Your task to perform on an android device: Go to Yahoo.com Image 0: 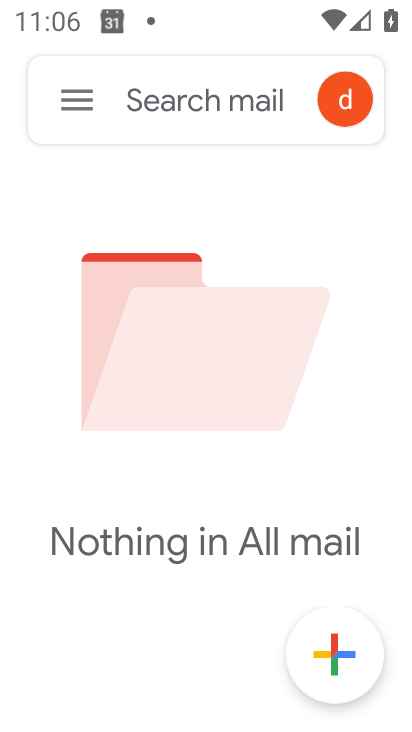
Step 0: press home button
Your task to perform on an android device: Go to Yahoo.com Image 1: 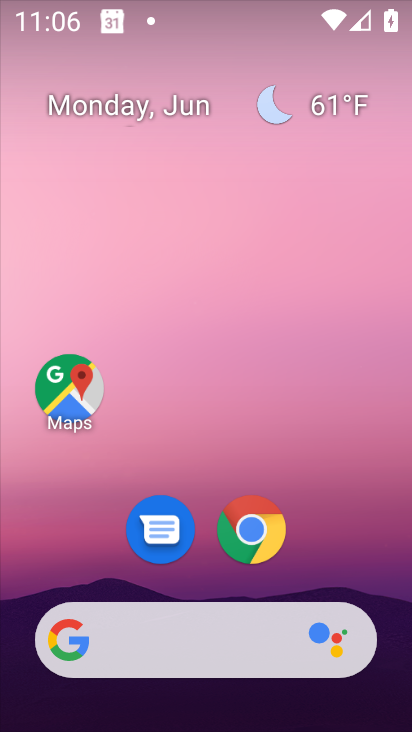
Step 1: drag from (92, 599) to (176, 132)
Your task to perform on an android device: Go to Yahoo.com Image 2: 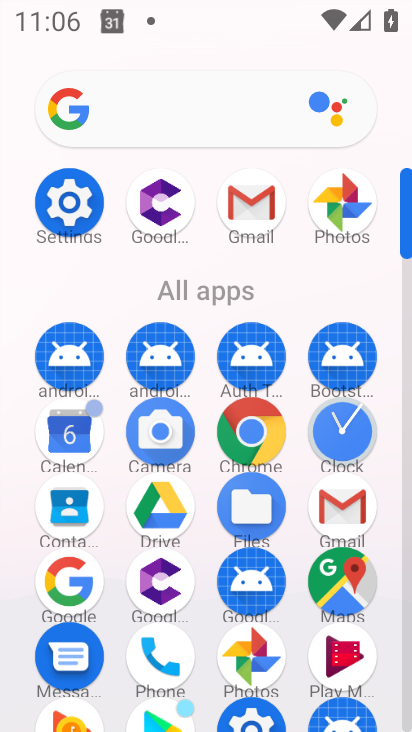
Step 2: click (255, 436)
Your task to perform on an android device: Go to Yahoo.com Image 3: 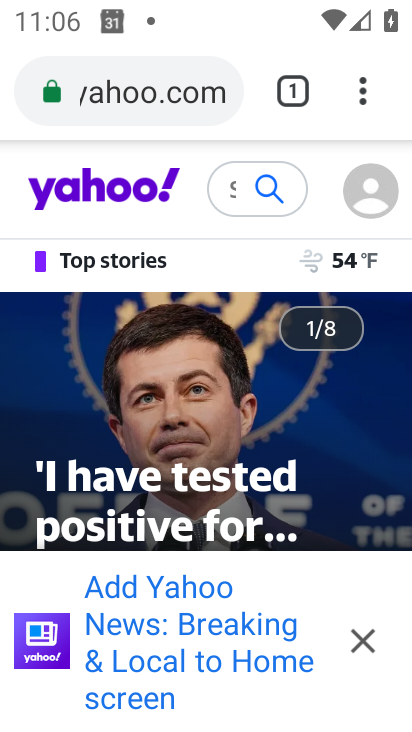
Step 3: task complete